Your task to perform on an android device: turn on location history Image 0: 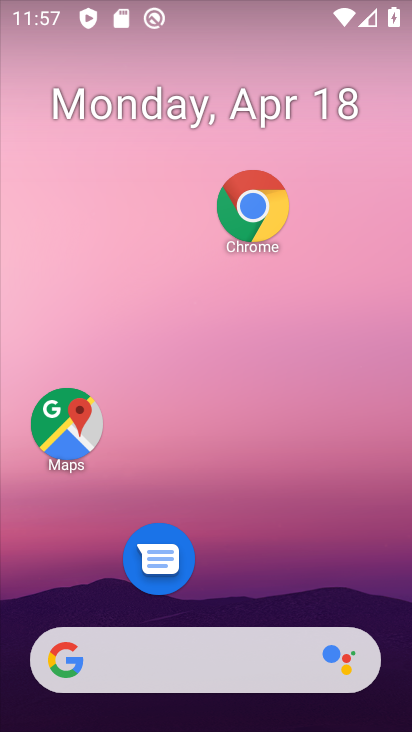
Step 0: drag from (296, 561) to (313, 85)
Your task to perform on an android device: turn on location history Image 1: 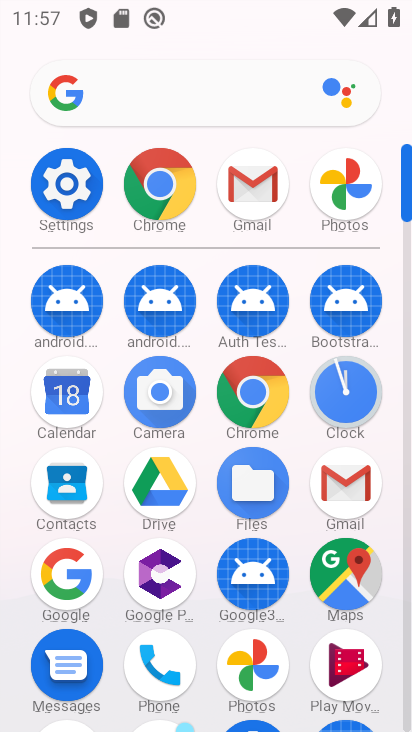
Step 1: click (58, 198)
Your task to perform on an android device: turn on location history Image 2: 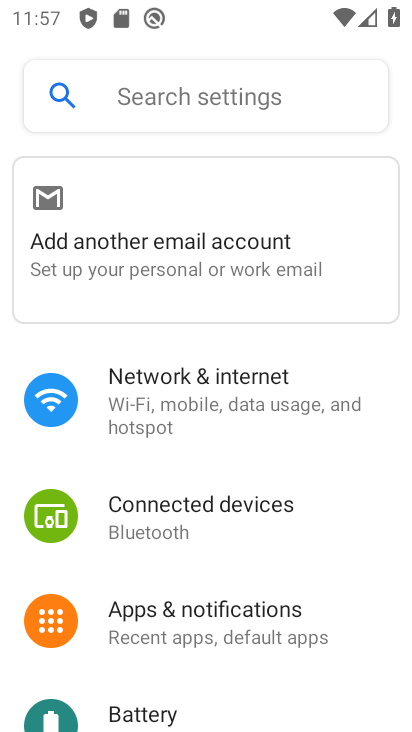
Step 2: drag from (235, 585) to (276, 173)
Your task to perform on an android device: turn on location history Image 3: 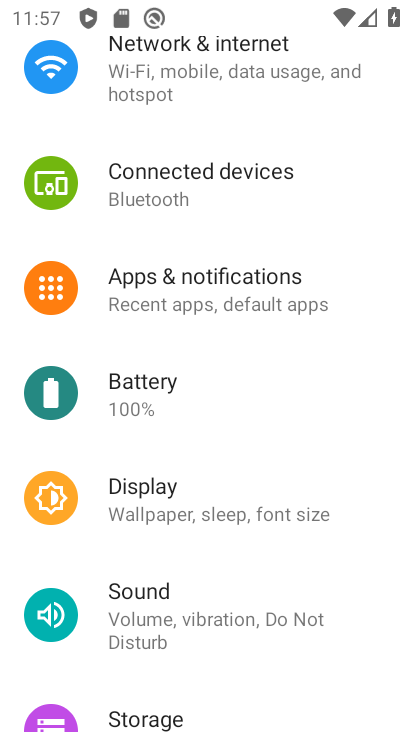
Step 3: drag from (247, 535) to (269, 355)
Your task to perform on an android device: turn on location history Image 4: 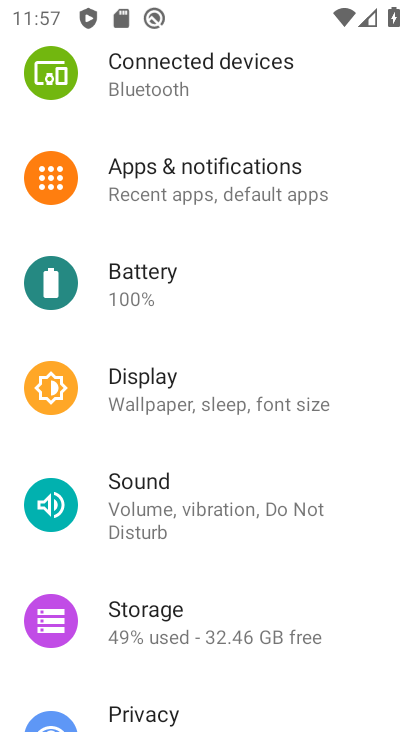
Step 4: drag from (202, 573) to (205, 397)
Your task to perform on an android device: turn on location history Image 5: 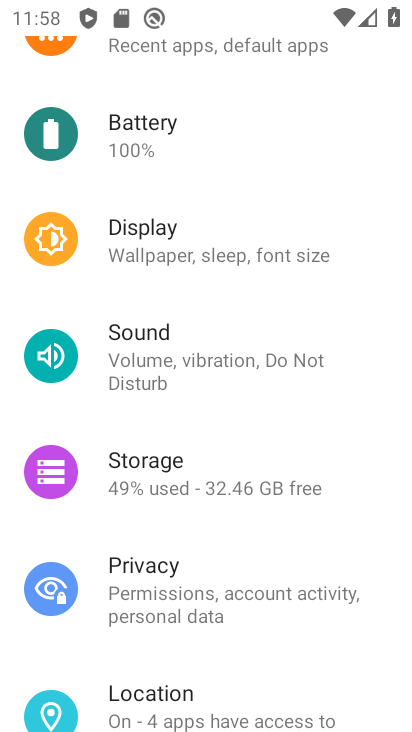
Step 5: drag from (249, 583) to (202, 338)
Your task to perform on an android device: turn on location history Image 6: 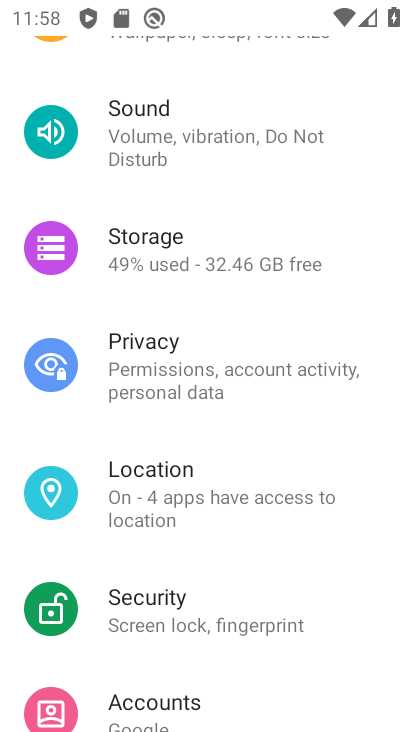
Step 6: click (181, 488)
Your task to perform on an android device: turn on location history Image 7: 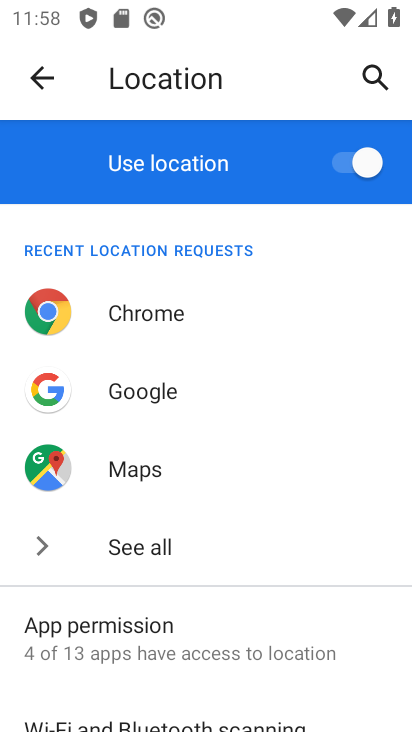
Step 7: drag from (354, 498) to (391, 268)
Your task to perform on an android device: turn on location history Image 8: 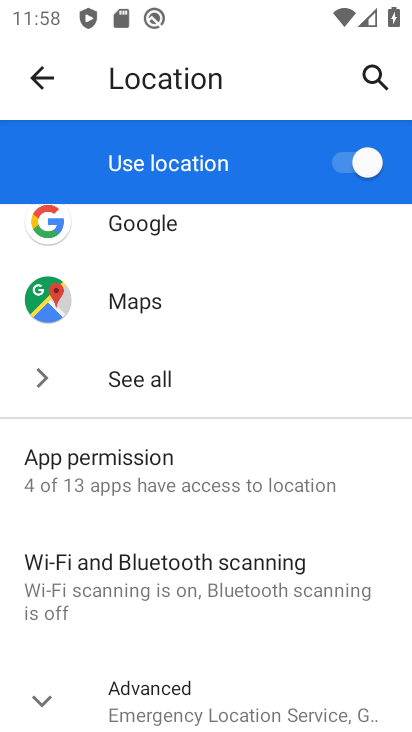
Step 8: drag from (326, 584) to (354, 298)
Your task to perform on an android device: turn on location history Image 9: 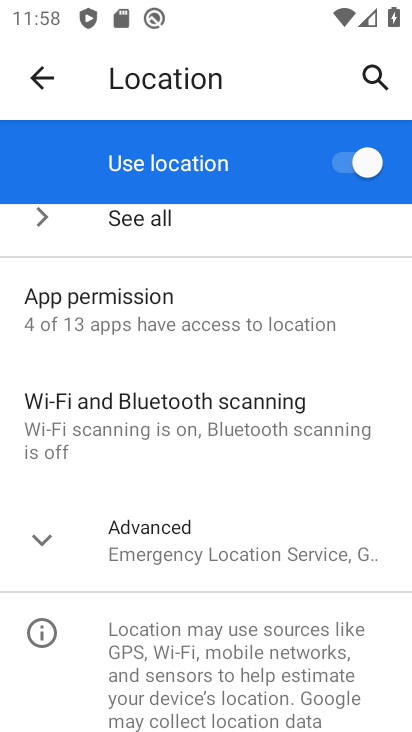
Step 9: drag from (315, 664) to (305, 326)
Your task to perform on an android device: turn on location history Image 10: 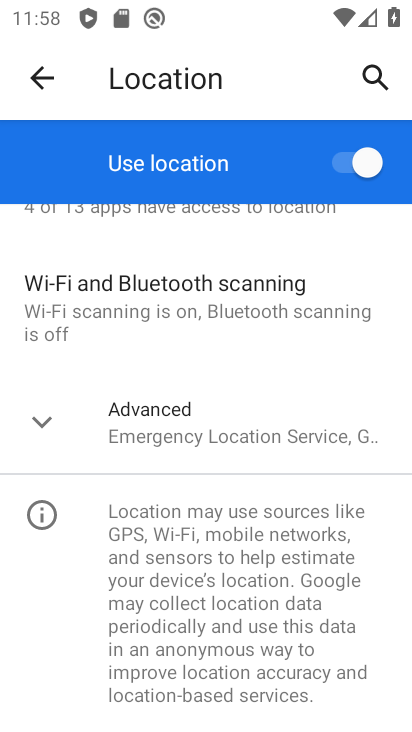
Step 10: click (205, 417)
Your task to perform on an android device: turn on location history Image 11: 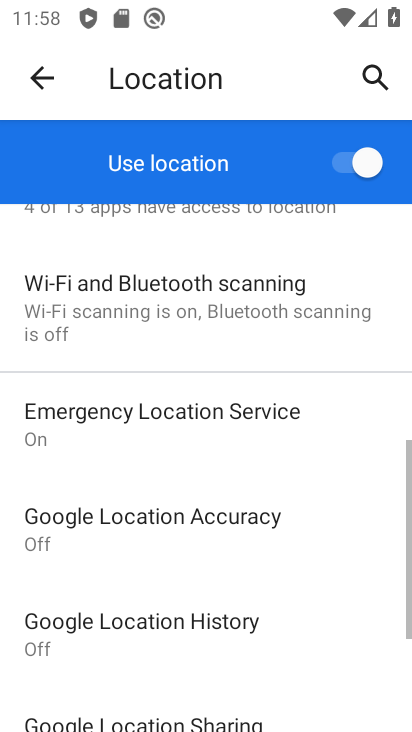
Step 11: drag from (225, 598) to (262, 395)
Your task to perform on an android device: turn on location history Image 12: 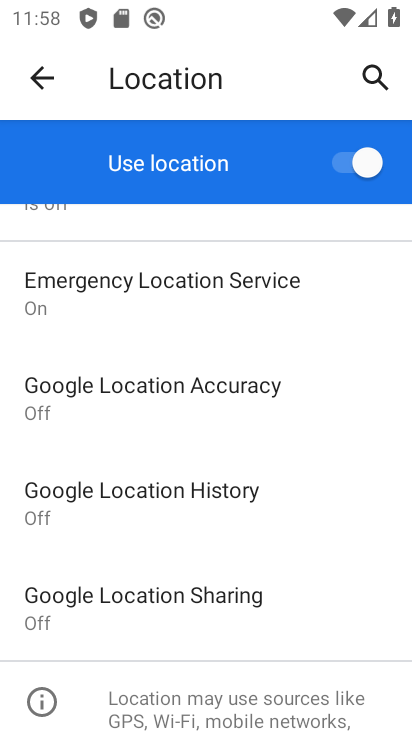
Step 12: click (214, 508)
Your task to perform on an android device: turn on location history Image 13: 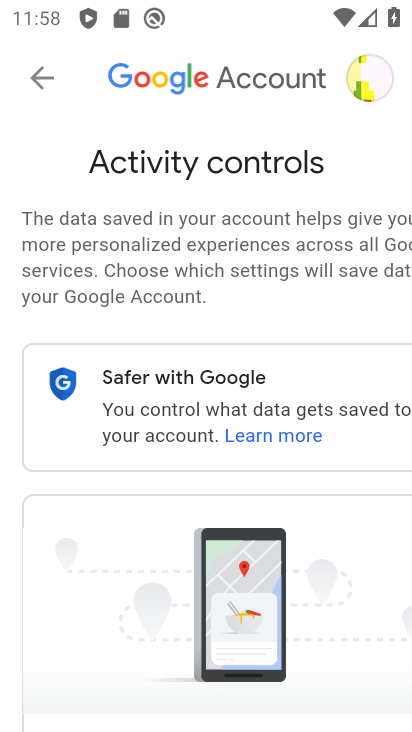
Step 13: drag from (252, 638) to (303, 196)
Your task to perform on an android device: turn on location history Image 14: 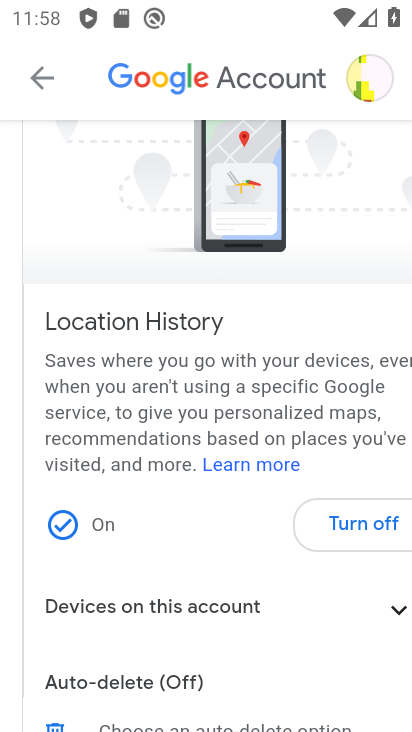
Step 14: click (356, 530)
Your task to perform on an android device: turn on location history Image 15: 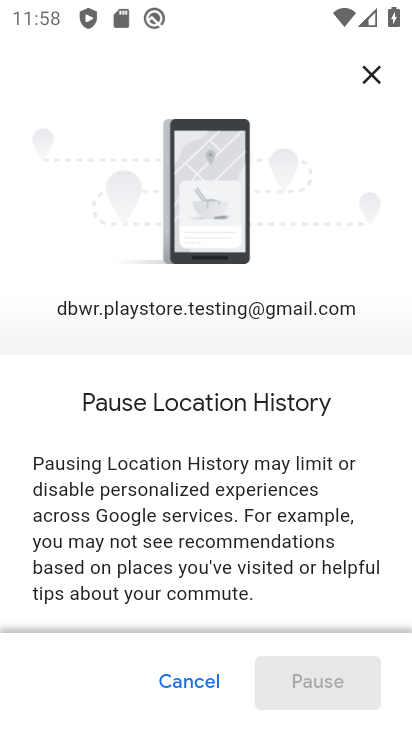
Step 15: drag from (200, 567) to (231, 17)
Your task to perform on an android device: turn on location history Image 16: 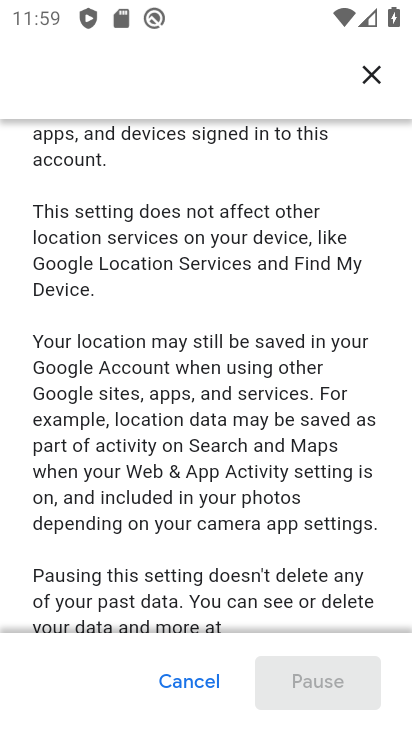
Step 16: drag from (247, 565) to (339, 52)
Your task to perform on an android device: turn on location history Image 17: 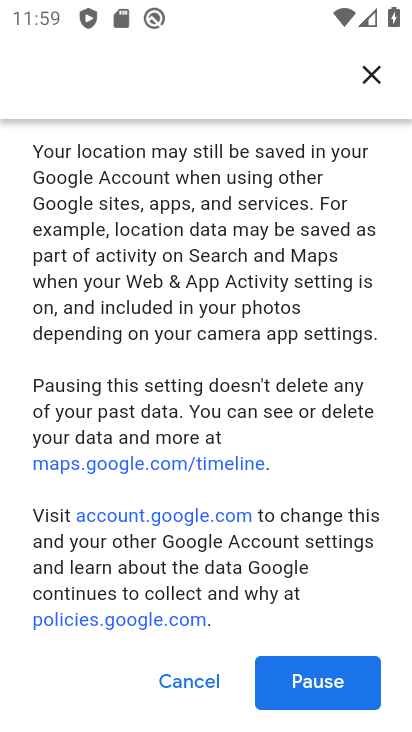
Step 17: click (364, 79)
Your task to perform on an android device: turn on location history Image 18: 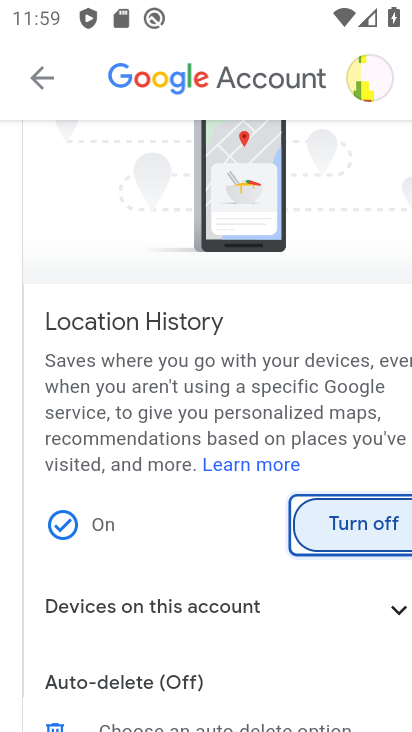
Step 18: task complete